Your task to perform on an android device: change the clock style Image 0: 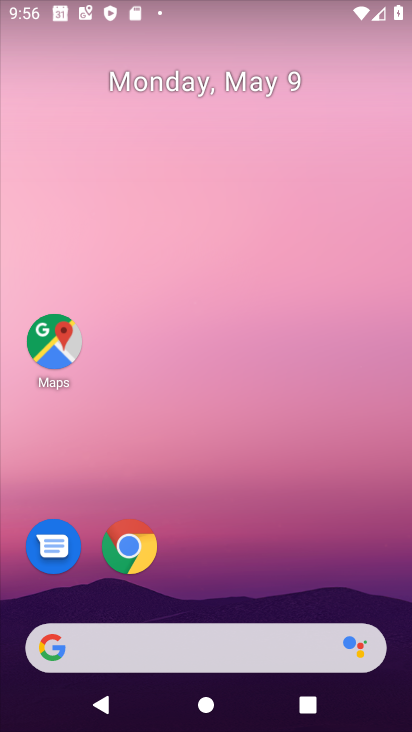
Step 0: drag from (254, 704) to (181, 9)
Your task to perform on an android device: change the clock style Image 1: 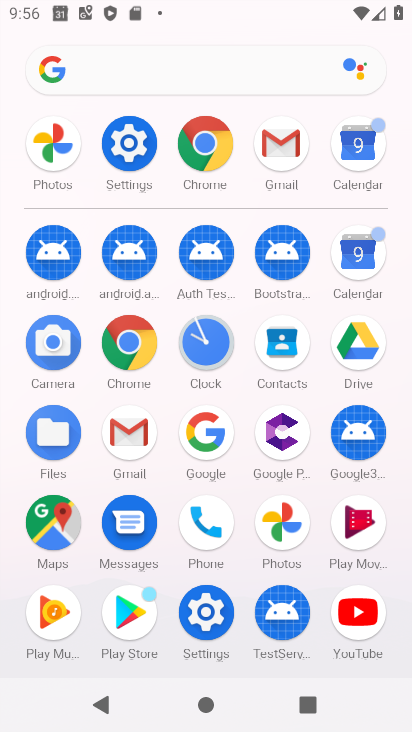
Step 1: click (212, 357)
Your task to perform on an android device: change the clock style Image 2: 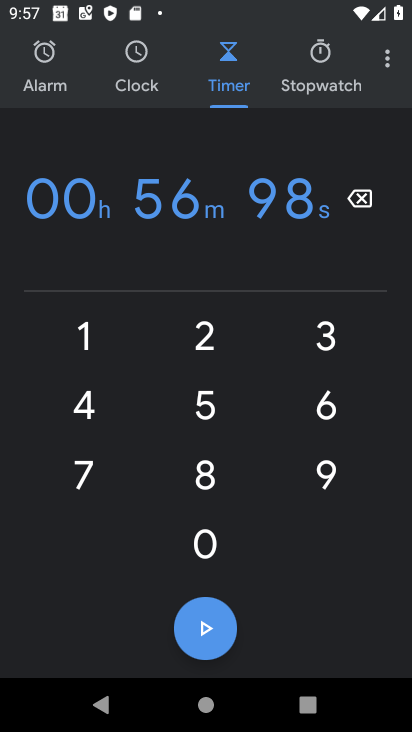
Step 2: click (389, 46)
Your task to perform on an android device: change the clock style Image 3: 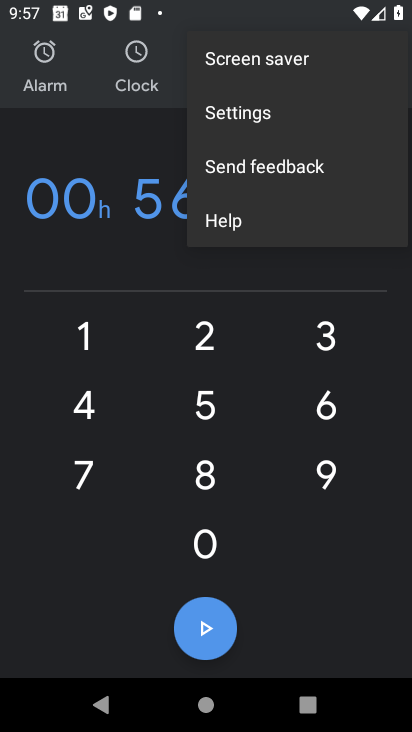
Step 3: click (231, 114)
Your task to perform on an android device: change the clock style Image 4: 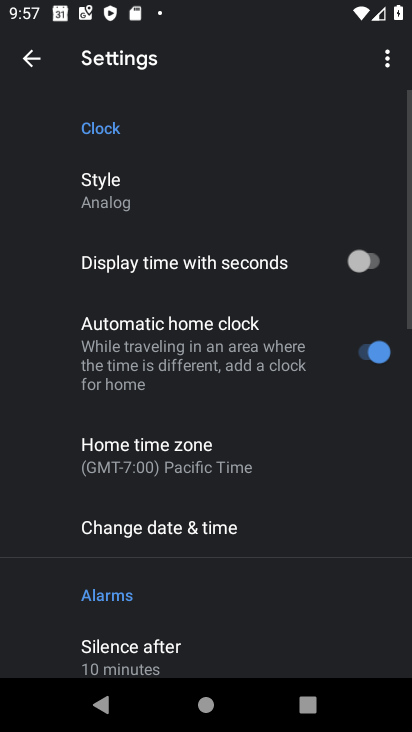
Step 4: click (131, 193)
Your task to perform on an android device: change the clock style Image 5: 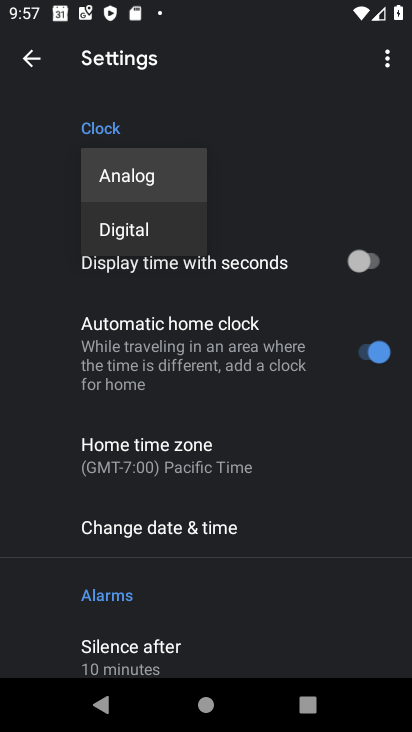
Step 5: click (143, 239)
Your task to perform on an android device: change the clock style Image 6: 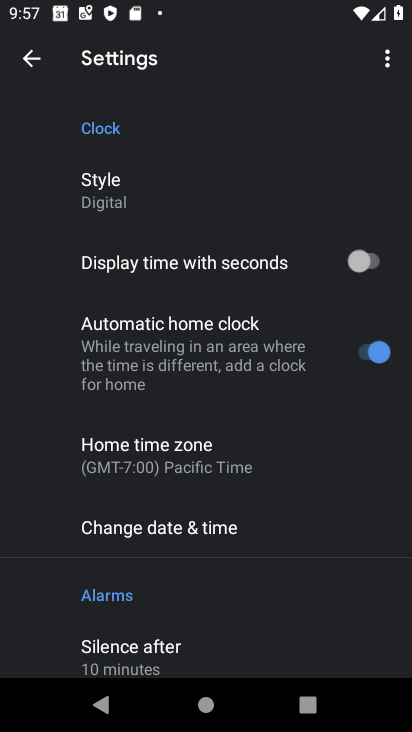
Step 6: task complete